Your task to perform on an android device: change notifications settings Image 0: 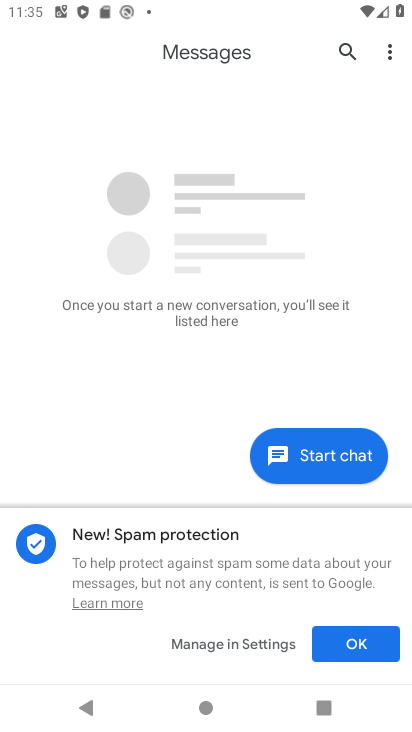
Step 0: press home button
Your task to perform on an android device: change notifications settings Image 1: 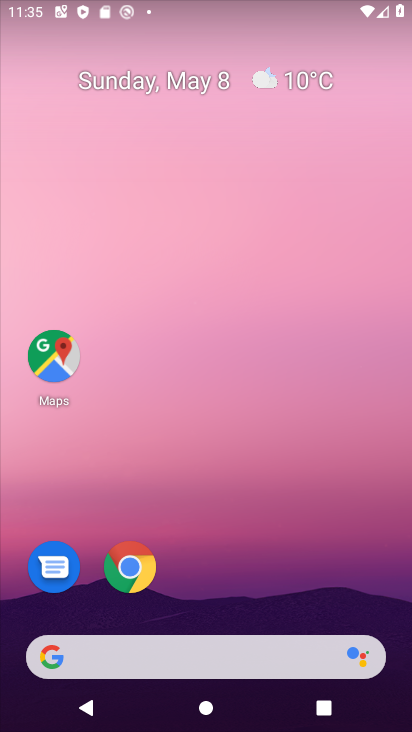
Step 1: drag from (291, 607) to (347, 141)
Your task to perform on an android device: change notifications settings Image 2: 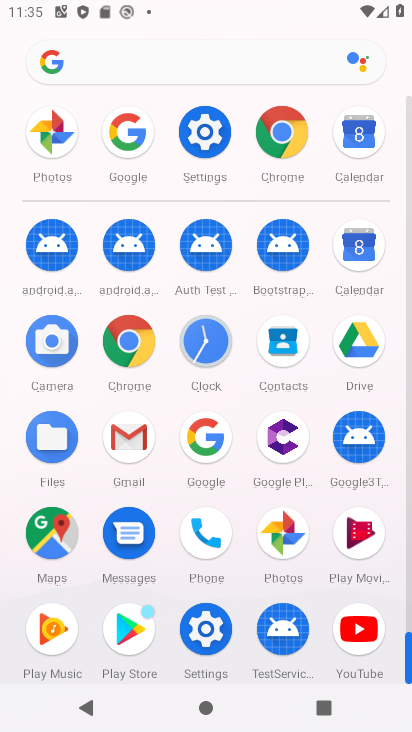
Step 2: click (203, 145)
Your task to perform on an android device: change notifications settings Image 3: 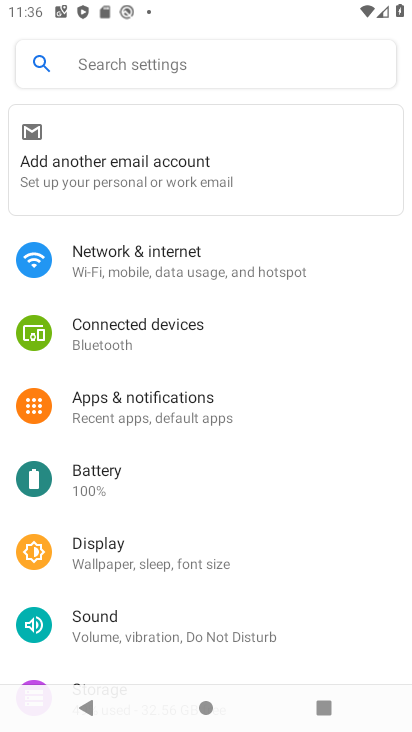
Step 3: click (186, 382)
Your task to perform on an android device: change notifications settings Image 4: 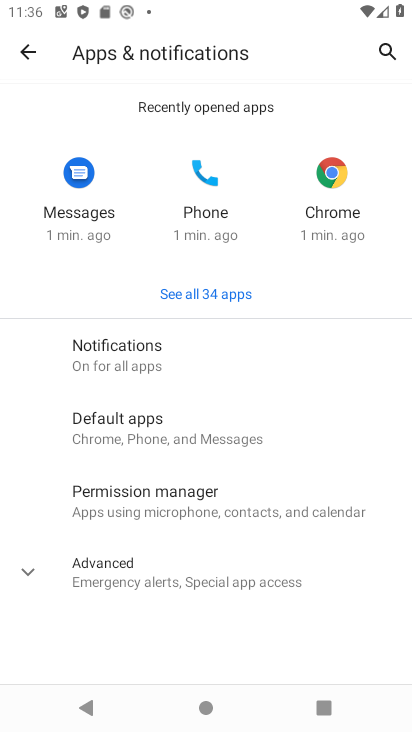
Step 4: click (185, 382)
Your task to perform on an android device: change notifications settings Image 5: 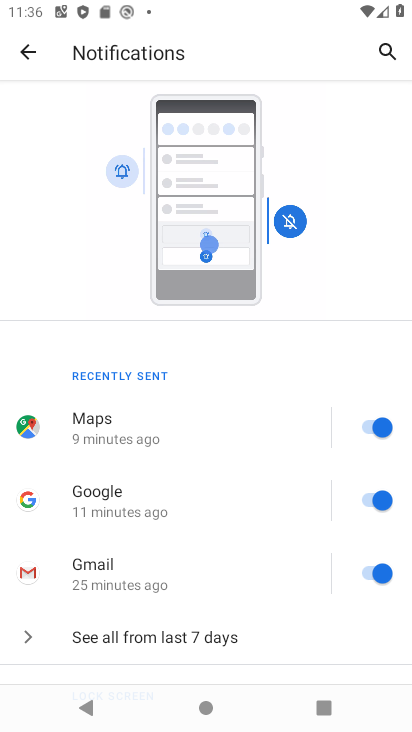
Step 5: click (369, 431)
Your task to perform on an android device: change notifications settings Image 6: 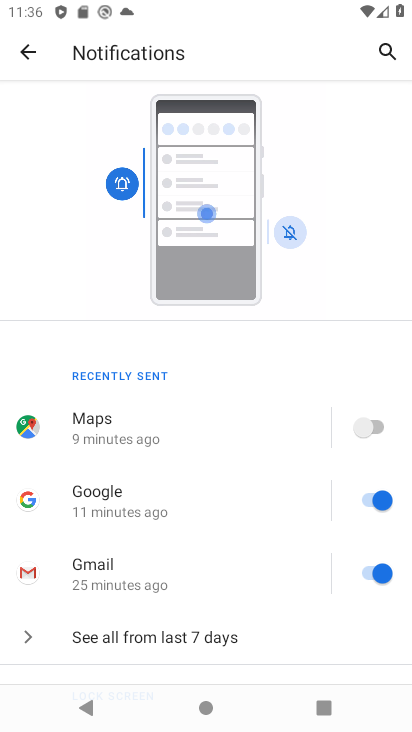
Step 6: task complete